Your task to perform on an android device: check the backup settings in the google photos Image 0: 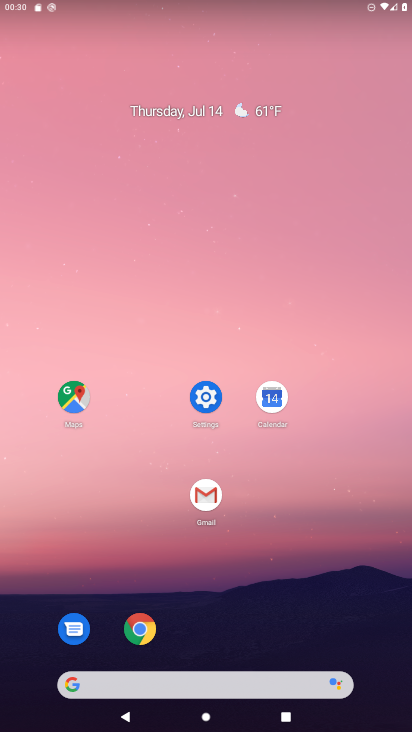
Step 0: drag from (386, 709) to (298, 193)
Your task to perform on an android device: check the backup settings in the google photos Image 1: 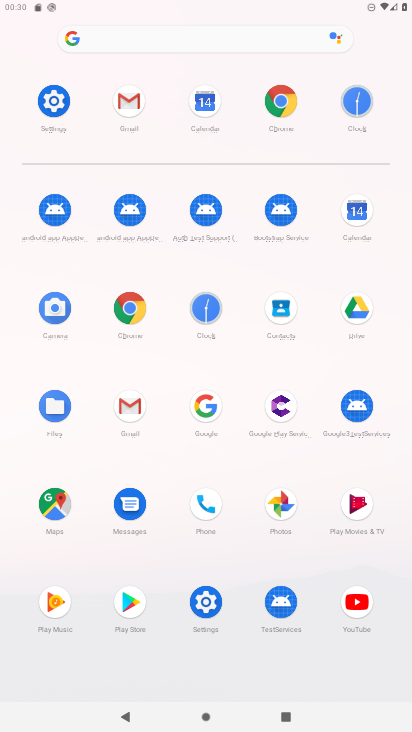
Step 1: click (283, 498)
Your task to perform on an android device: check the backup settings in the google photos Image 2: 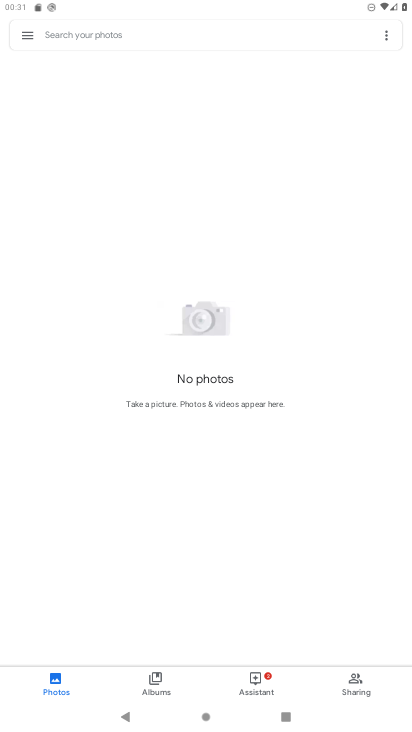
Step 2: task complete